Your task to perform on an android device: turn vacation reply on in the gmail app Image 0: 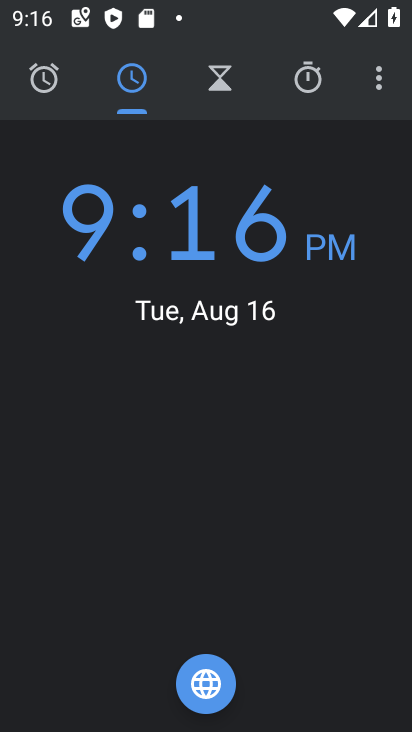
Step 0: press home button
Your task to perform on an android device: turn vacation reply on in the gmail app Image 1: 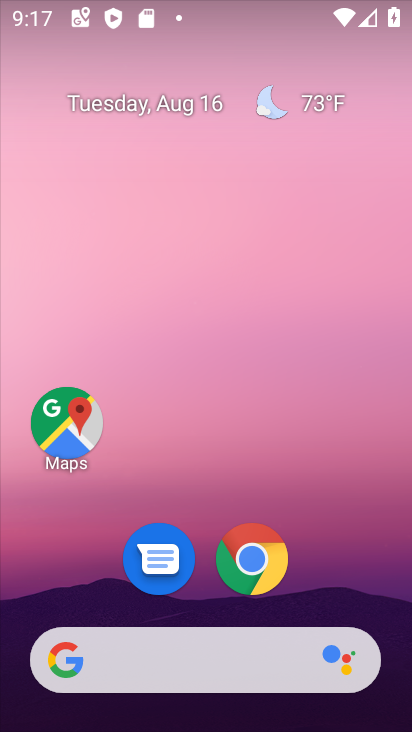
Step 1: drag from (348, 535) to (340, 27)
Your task to perform on an android device: turn vacation reply on in the gmail app Image 2: 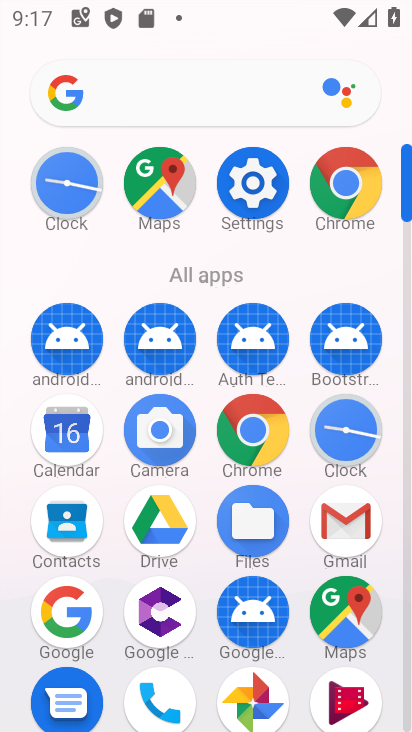
Step 2: click (343, 527)
Your task to perform on an android device: turn vacation reply on in the gmail app Image 3: 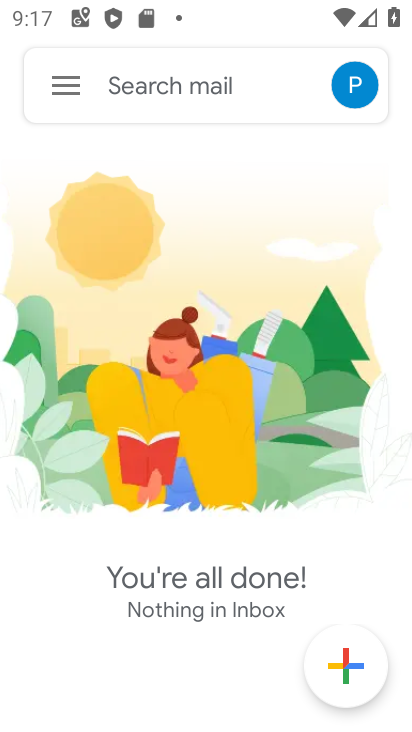
Step 3: click (63, 81)
Your task to perform on an android device: turn vacation reply on in the gmail app Image 4: 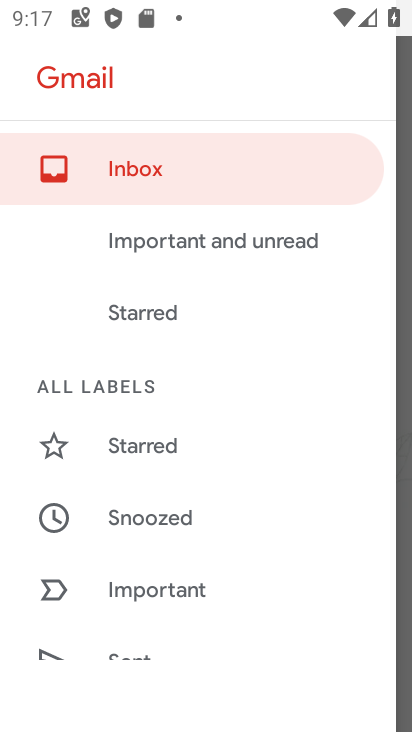
Step 4: drag from (247, 590) to (305, 142)
Your task to perform on an android device: turn vacation reply on in the gmail app Image 5: 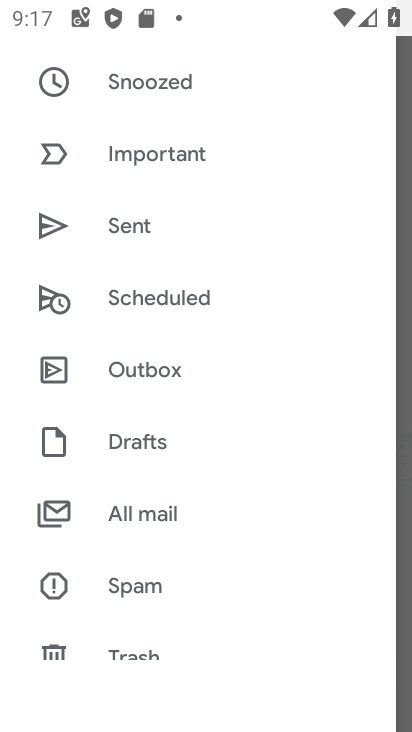
Step 5: drag from (228, 628) to (342, 57)
Your task to perform on an android device: turn vacation reply on in the gmail app Image 6: 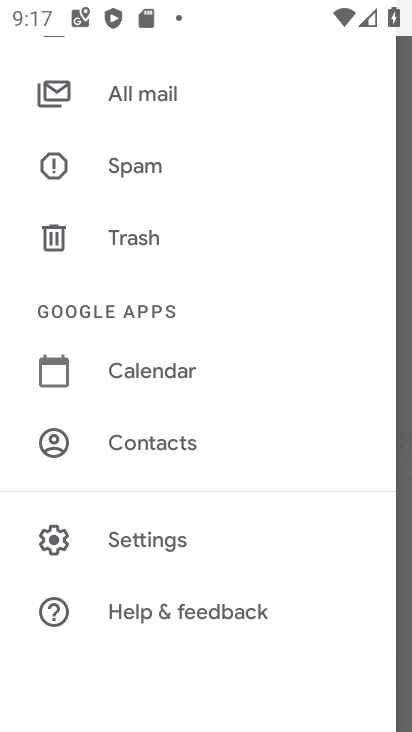
Step 6: click (130, 536)
Your task to perform on an android device: turn vacation reply on in the gmail app Image 7: 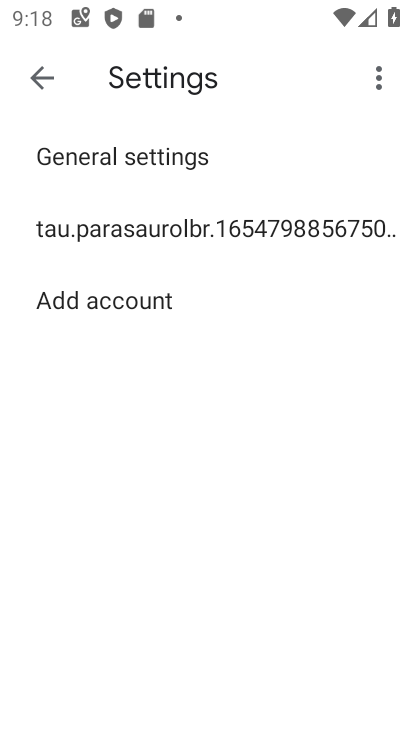
Step 7: click (269, 220)
Your task to perform on an android device: turn vacation reply on in the gmail app Image 8: 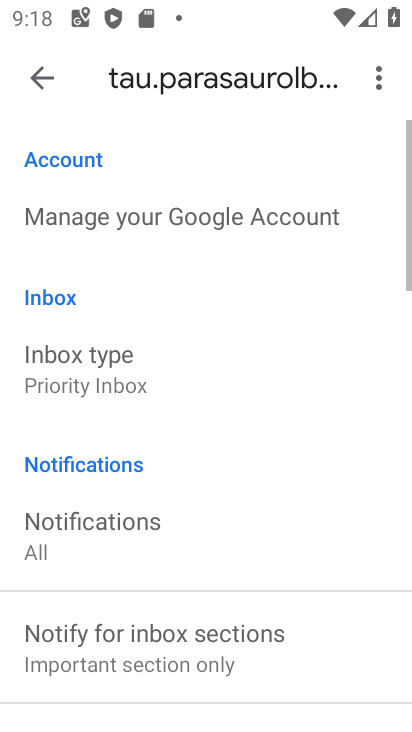
Step 8: drag from (193, 562) to (200, 46)
Your task to perform on an android device: turn vacation reply on in the gmail app Image 9: 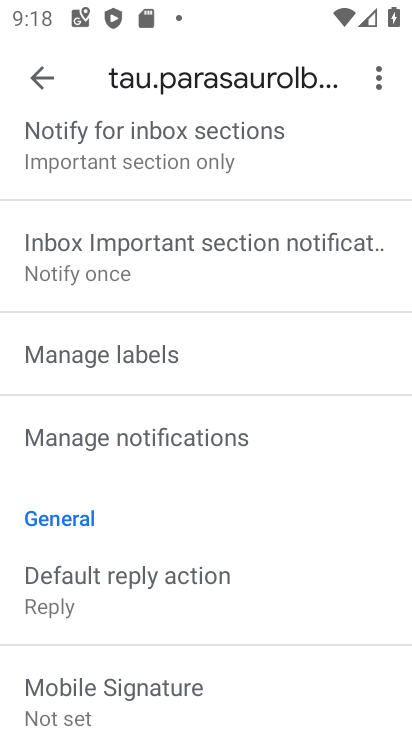
Step 9: drag from (165, 645) to (244, 10)
Your task to perform on an android device: turn vacation reply on in the gmail app Image 10: 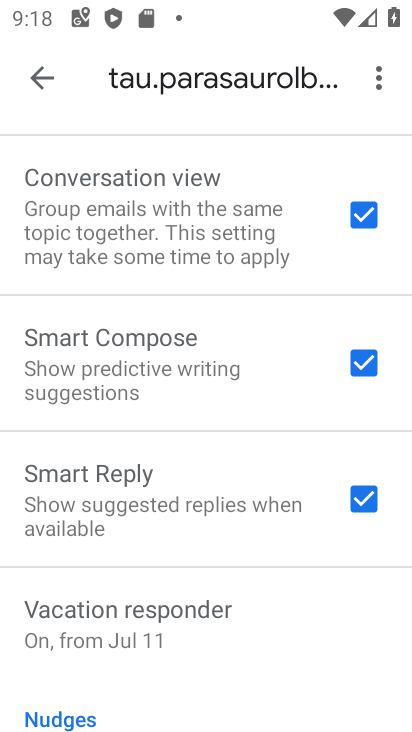
Step 10: click (188, 612)
Your task to perform on an android device: turn vacation reply on in the gmail app Image 11: 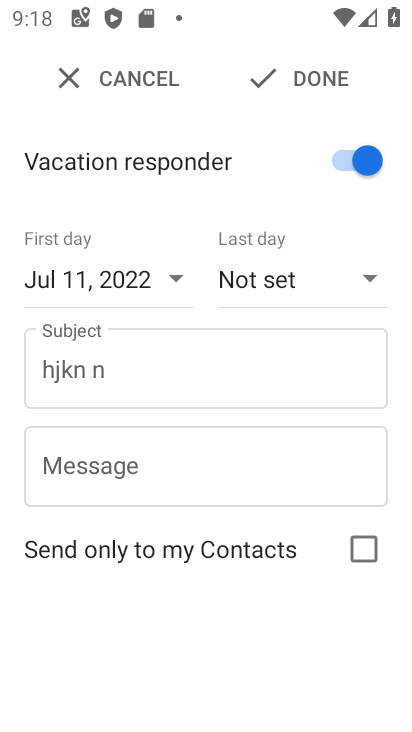
Step 11: click (298, 72)
Your task to perform on an android device: turn vacation reply on in the gmail app Image 12: 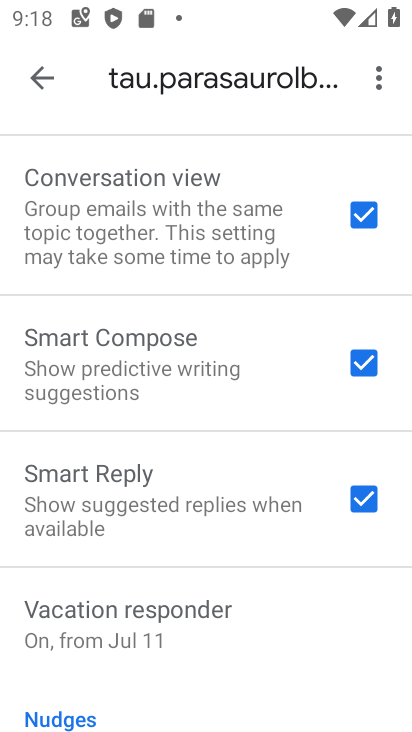
Step 12: task complete